Your task to perform on an android device: see sites visited before in the chrome app Image 0: 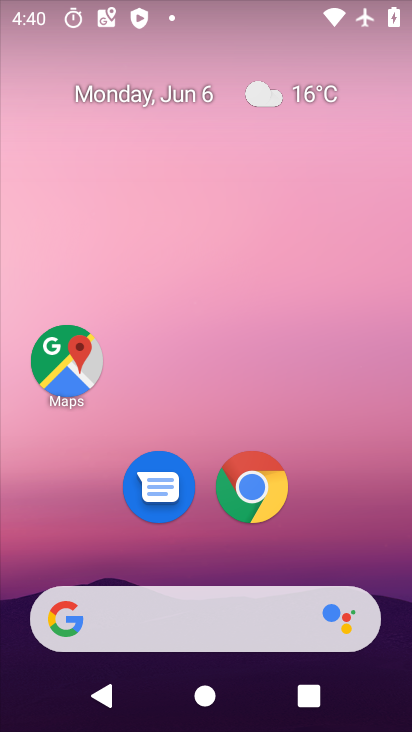
Step 0: drag from (329, 491) to (288, 73)
Your task to perform on an android device: see sites visited before in the chrome app Image 1: 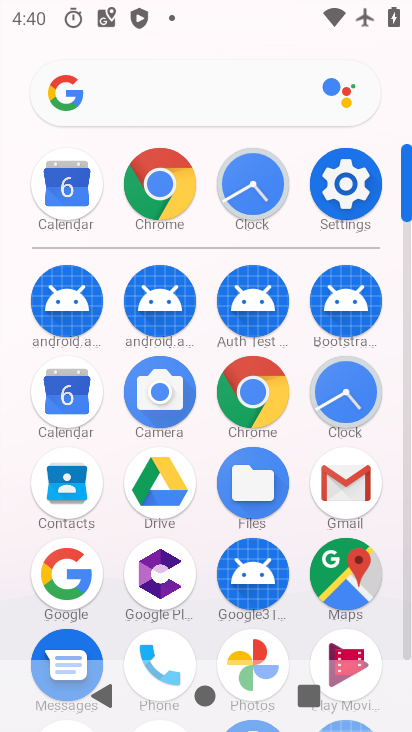
Step 1: click (161, 175)
Your task to perform on an android device: see sites visited before in the chrome app Image 2: 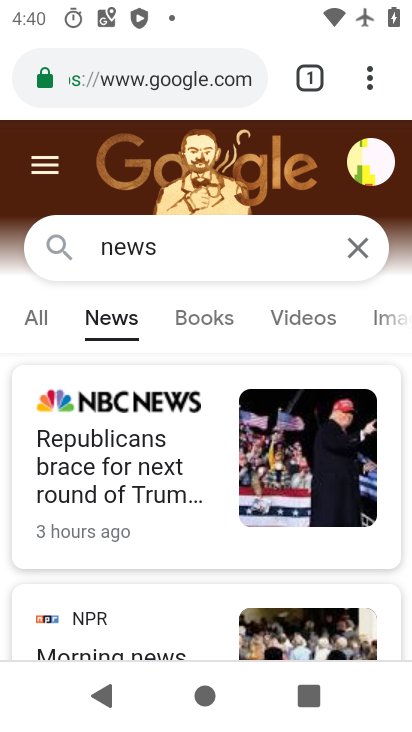
Step 2: task complete